Your task to perform on an android device: change the clock display to analog Image 0: 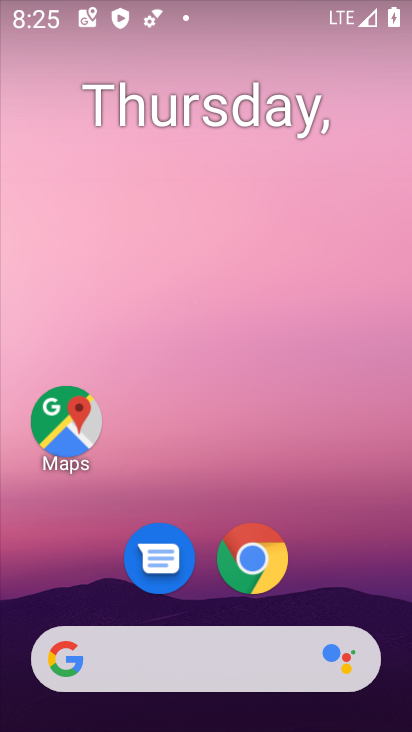
Step 0: drag from (195, 625) to (281, 74)
Your task to perform on an android device: change the clock display to analog Image 1: 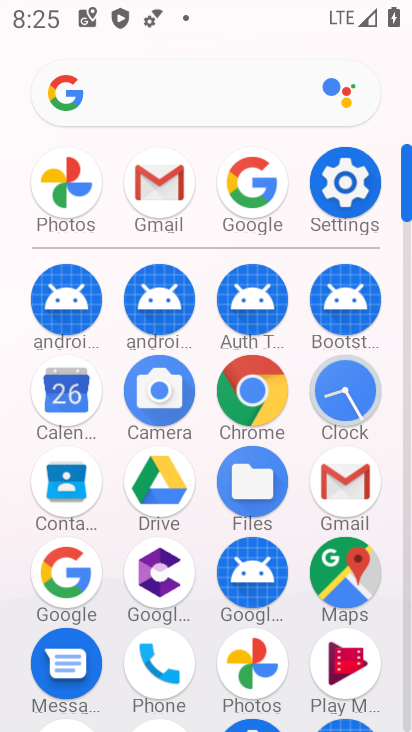
Step 1: click (347, 391)
Your task to perform on an android device: change the clock display to analog Image 2: 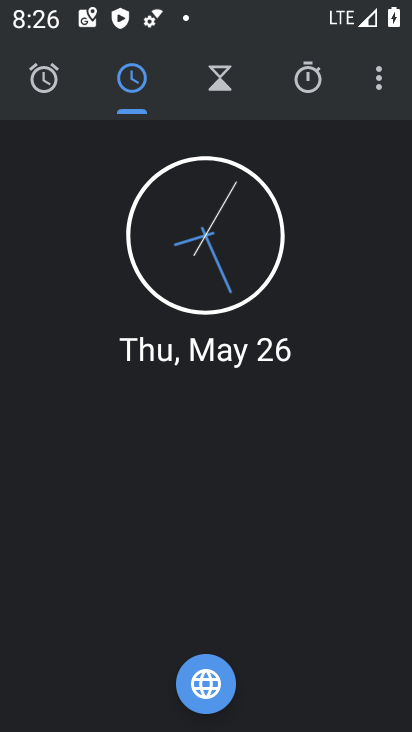
Step 2: click (377, 83)
Your task to perform on an android device: change the clock display to analog Image 3: 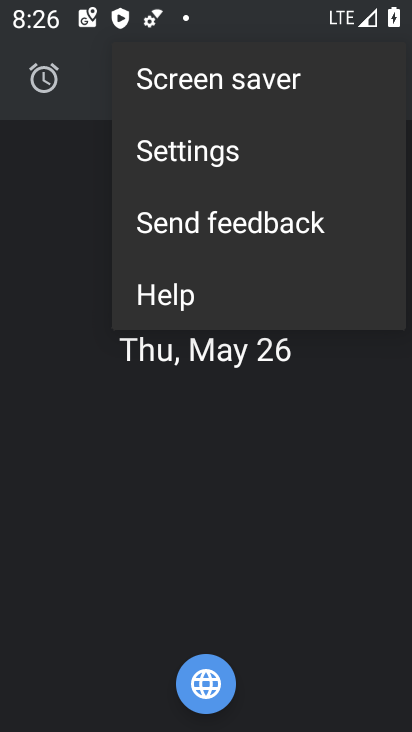
Step 3: click (216, 151)
Your task to perform on an android device: change the clock display to analog Image 4: 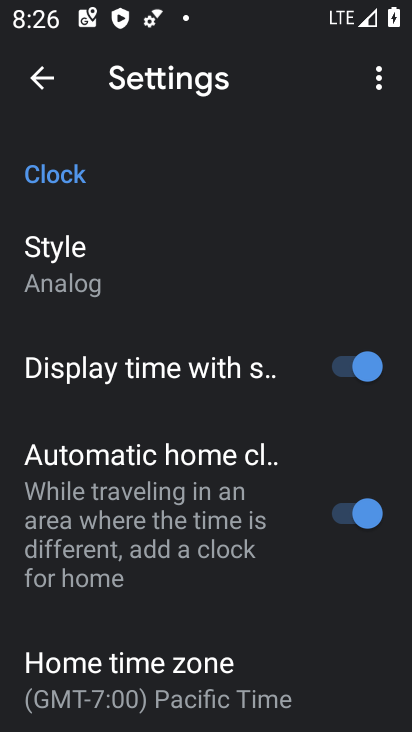
Step 4: task complete